Your task to perform on an android device: find snoozed emails in the gmail app Image 0: 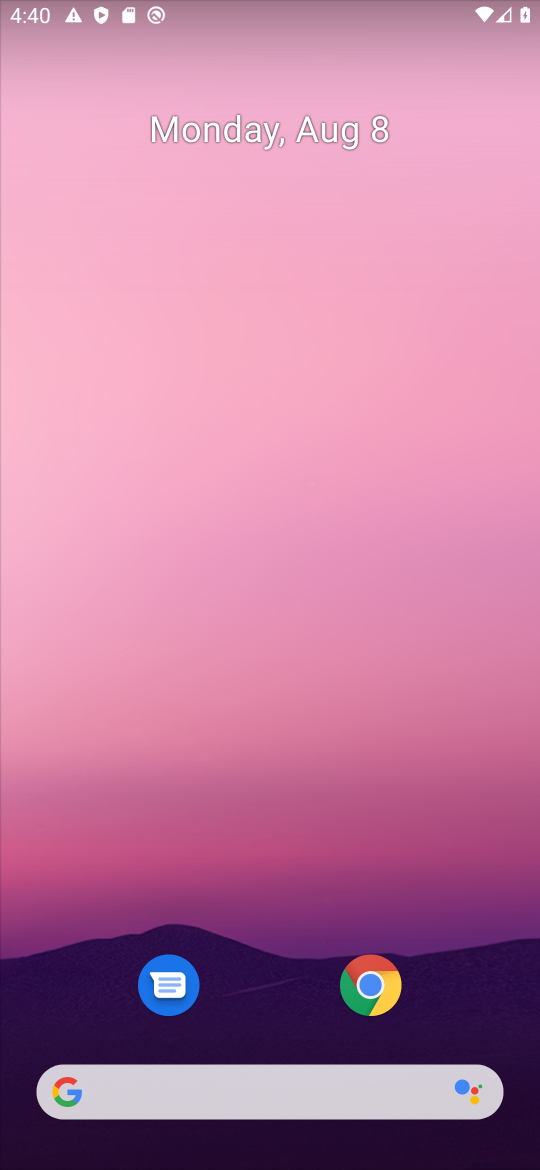
Step 0: drag from (270, 903) to (276, 398)
Your task to perform on an android device: find snoozed emails in the gmail app Image 1: 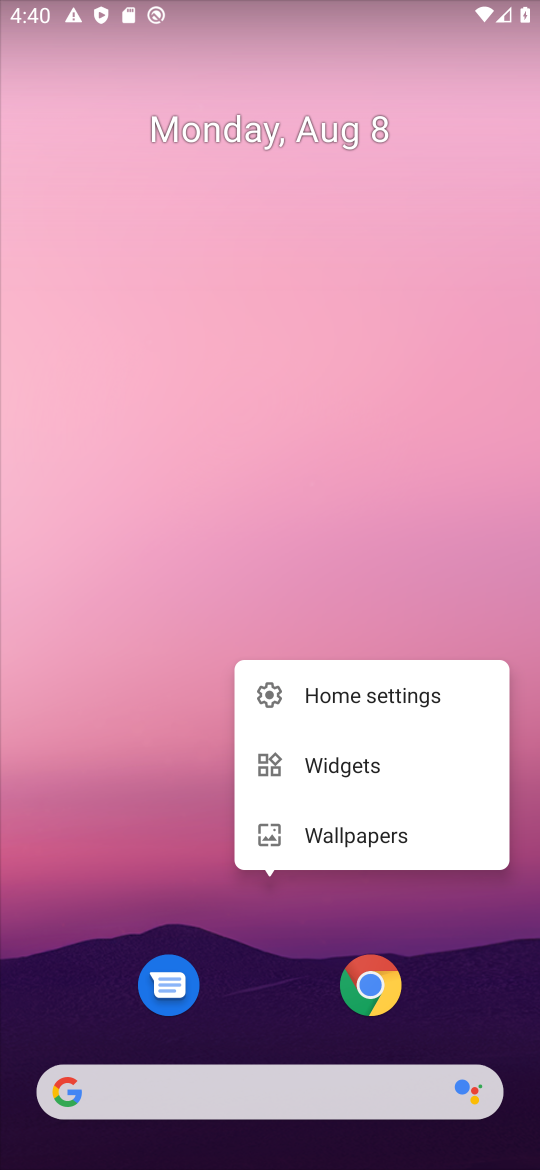
Step 1: click (219, 547)
Your task to perform on an android device: find snoozed emails in the gmail app Image 2: 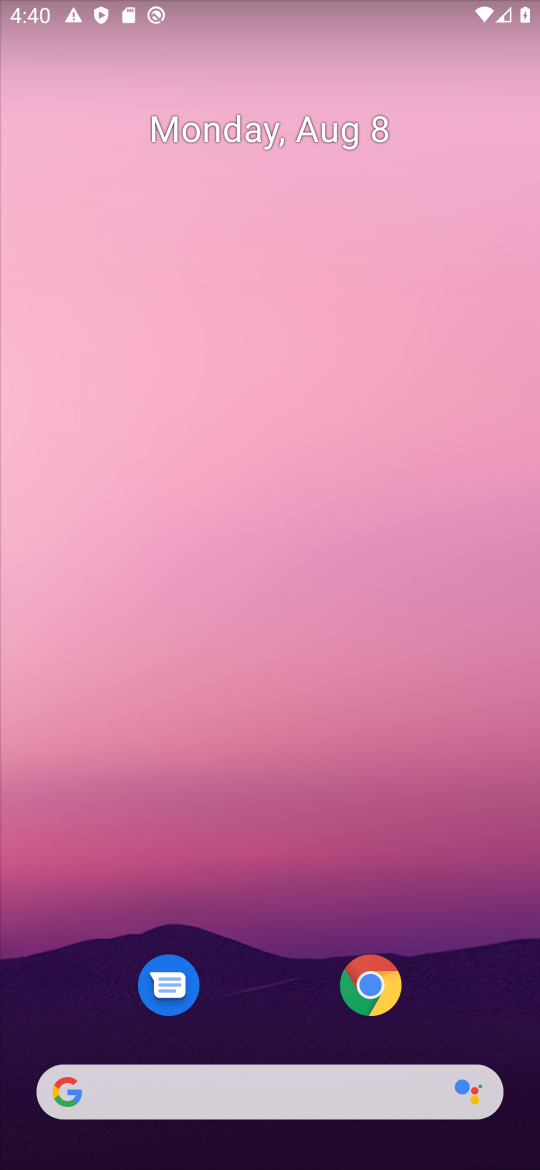
Step 2: drag from (272, 890) to (289, 334)
Your task to perform on an android device: find snoozed emails in the gmail app Image 3: 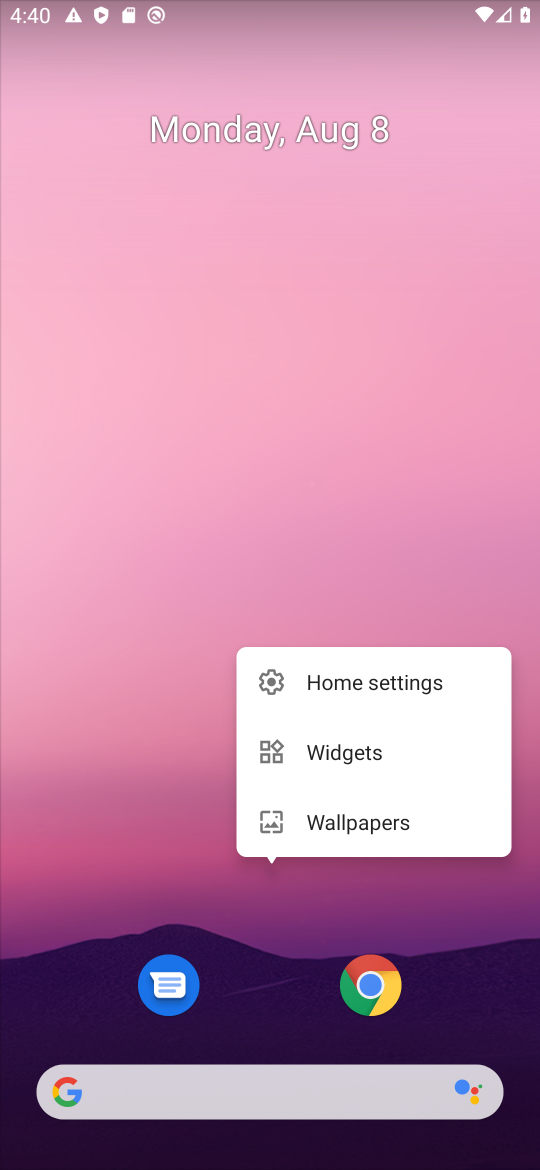
Step 3: click (306, 475)
Your task to perform on an android device: find snoozed emails in the gmail app Image 4: 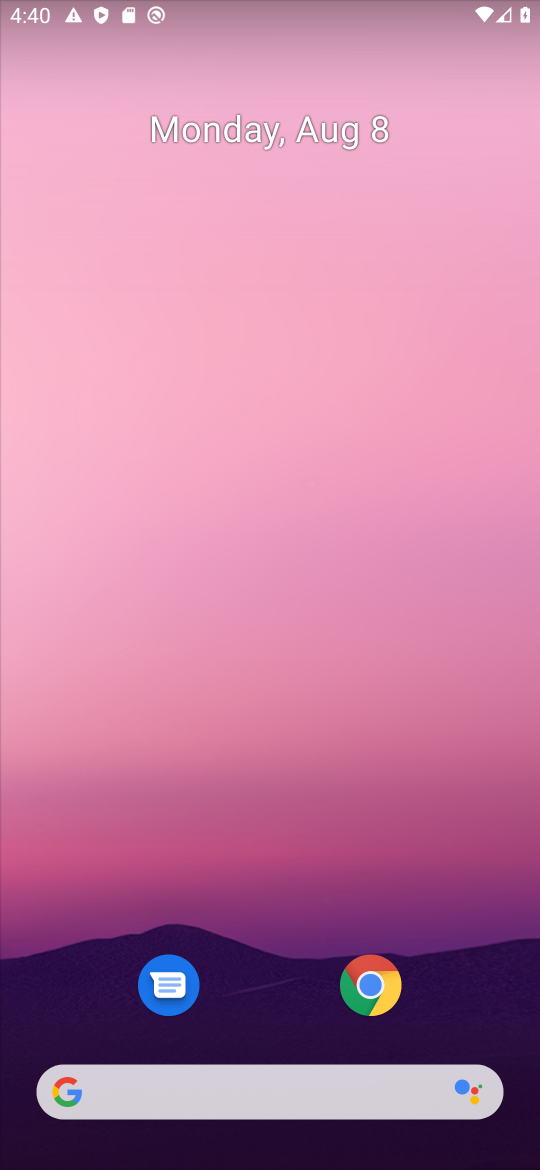
Step 4: drag from (278, 935) to (265, 82)
Your task to perform on an android device: find snoozed emails in the gmail app Image 5: 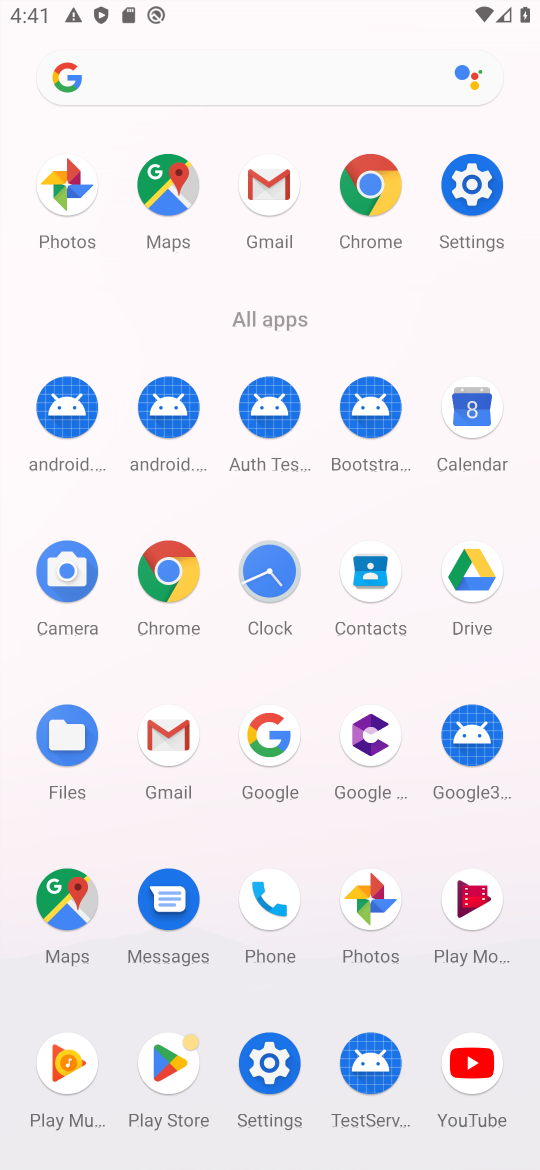
Step 5: click (261, 213)
Your task to perform on an android device: find snoozed emails in the gmail app Image 6: 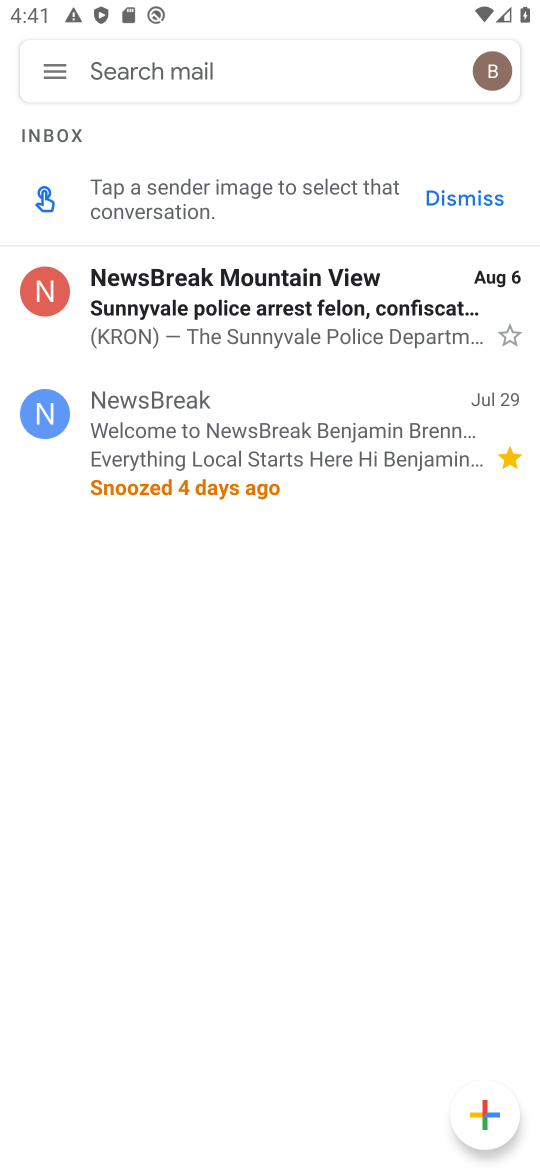
Step 6: task complete